Your task to perform on an android device: check google app version Image 0: 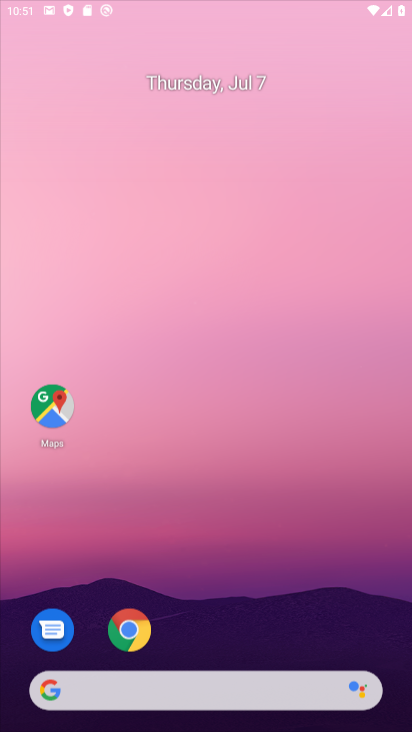
Step 0: press home button
Your task to perform on an android device: check google app version Image 1: 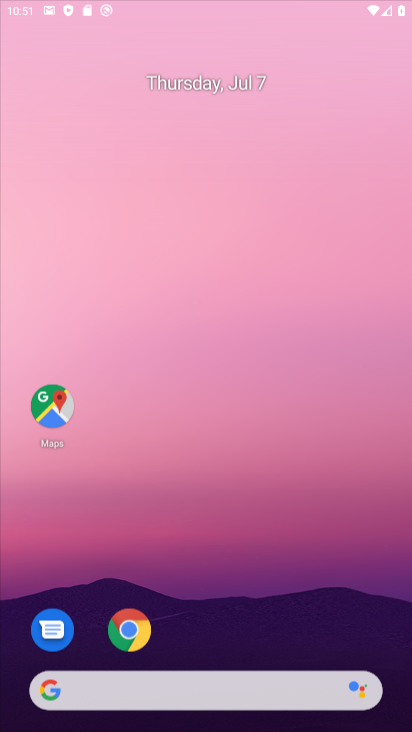
Step 1: click (233, 29)
Your task to perform on an android device: check google app version Image 2: 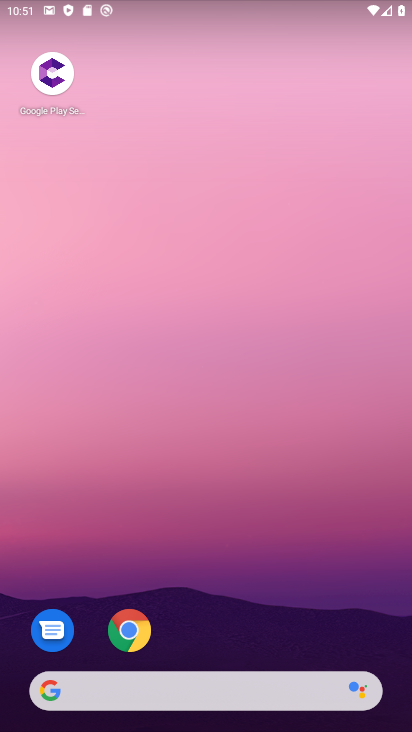
Step 2: drag from (241, 606) to (217, 0)
Your task to perform on an android device: check google app version Image 3: 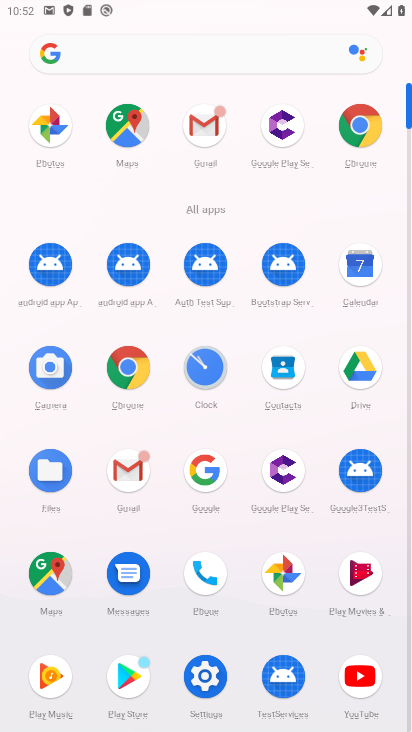
Step 3: click (210, 462)
Your task to perform on an android device: check google app version Image 4: 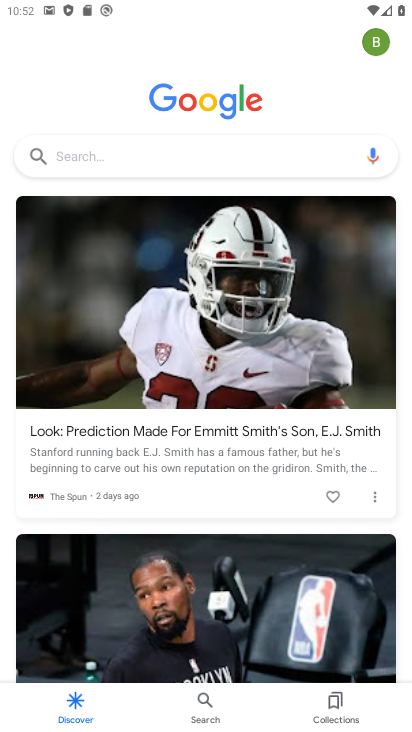
Step 4: click (373, 39)
Your task to perform on an android device: check google app version Image 5: 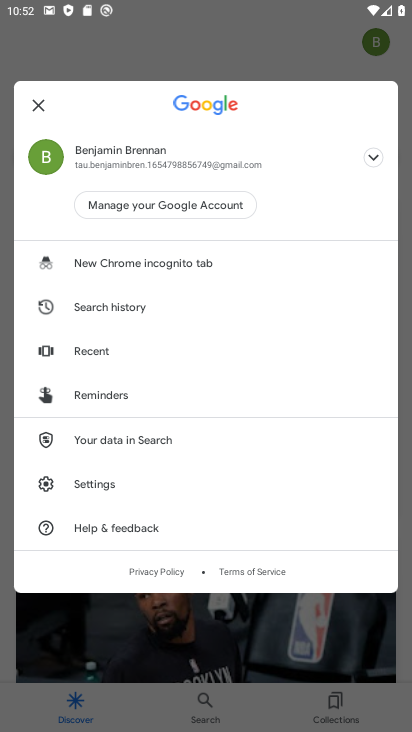
Step 5: click (95, 486)
Your task to perform on an android device: check google app version Image 6: 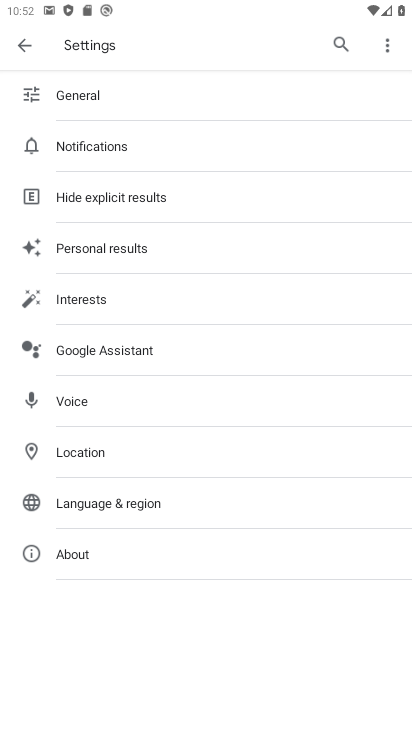
Step 6: click (93, 558)
Your task to perform on an android device: check google app version Image 7: 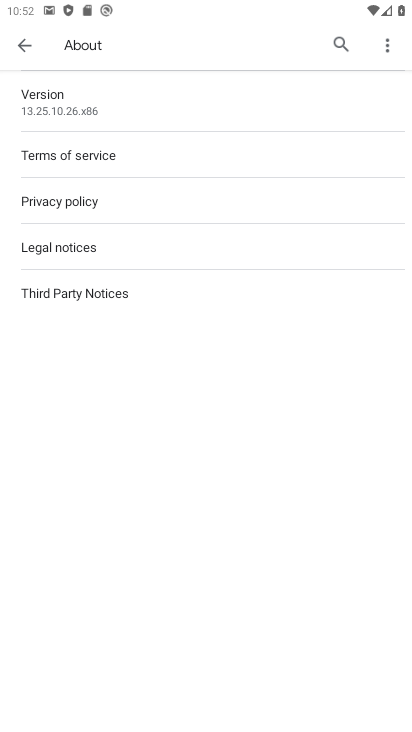
Step 7: click (163, 86)
Your task to perform on an android device: check google app version Image 8: 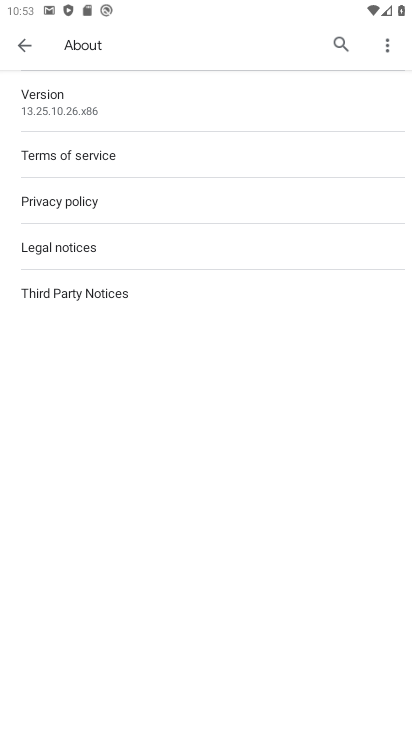
Step 8: click (73, 96)
Your task to perform on an android device: check google app version Image 9: 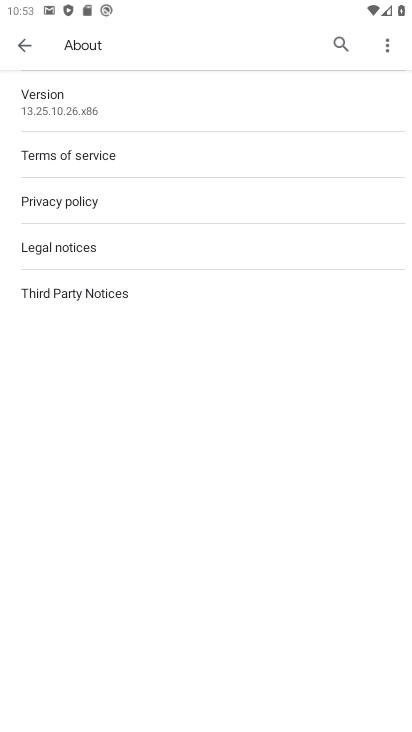
Step 9: task complete